Your task to perform on an android device: turn off sleep mode Image 0: 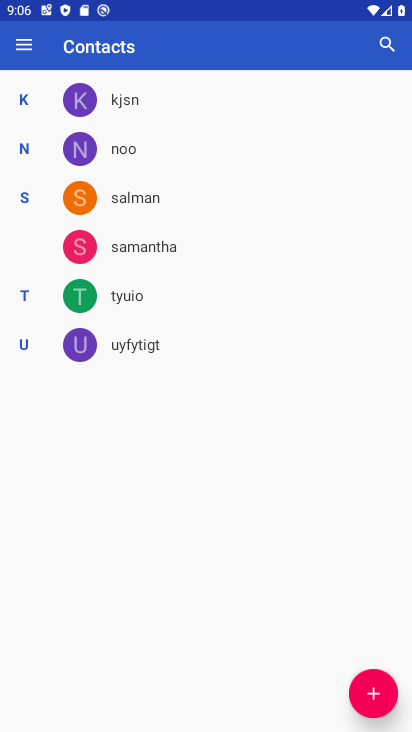
Step 0: press home button
Your task to perform on an android device: turn off sleep mode Image 1: 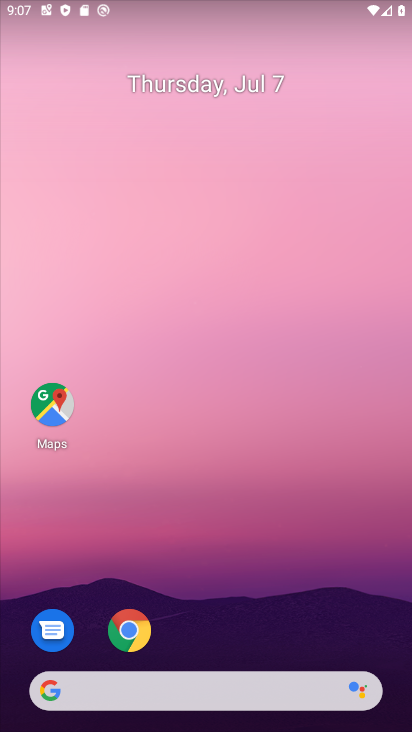
Step 1: drag from (272, 620) to (297, 69)
Your task to perform on an android device: turn off sleep mode Image 2: 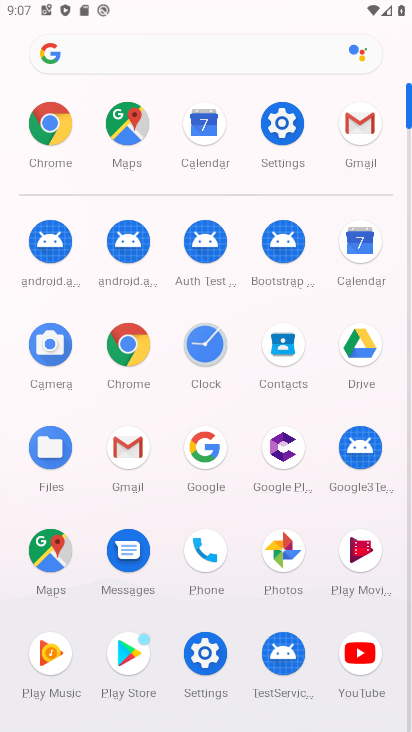
Step 2: click (218, 655)
Your task to perform on an android device: turn off sleep mode Image 3: 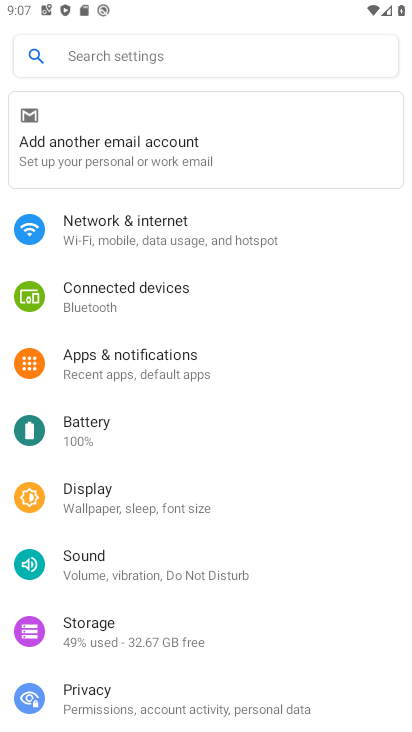
Step 3: click (81, 489)
Your task to perform on an android device: turn off sleep mode Image 4: 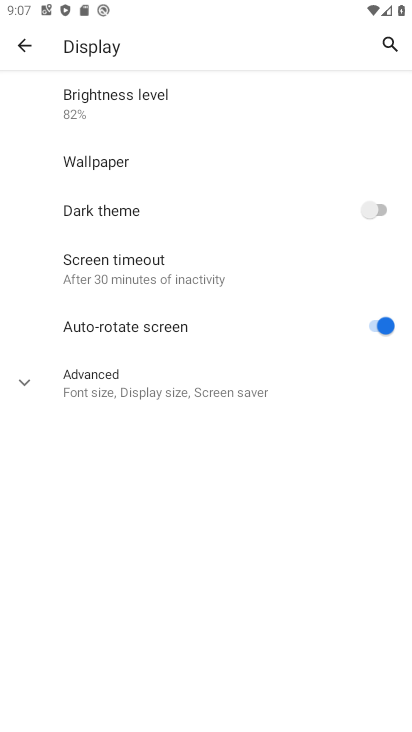
Step 4: task complete